Your task to perform on an android device: What's the weather? Image 0: 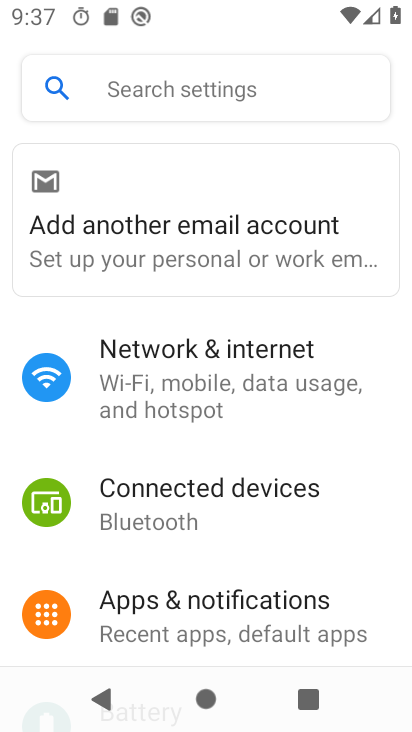
Step 0: press home button
Your task to perform on an android device: What's the weather? Image 1: 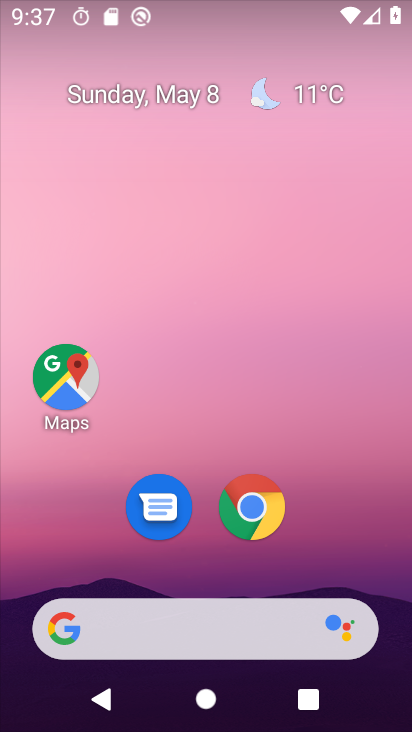
Step 1: click (319, 88)
Your task to perform on an android device: What's the weather? Image 2: 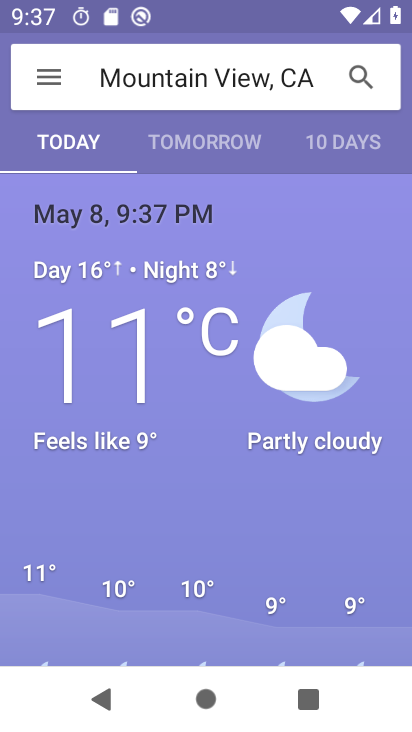
Step 2: task complete